Your task to perform on an android device: toggle translation in the chrome app Image 0: 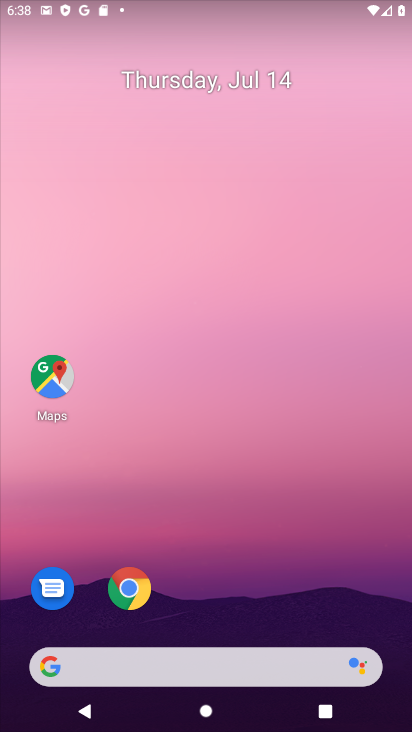
Step 0: drag from (215, 489) to (125, 40)
Your task to perform on an android device: toggle translation in the chrome app Image 1: 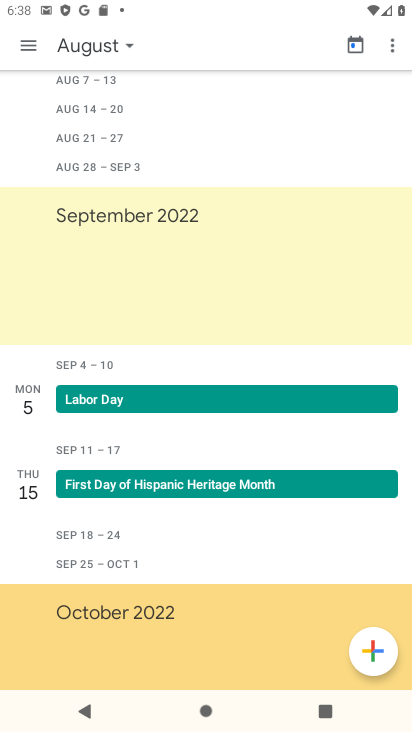
Step 1: press home button
Your task to perform on an android device: toggle translation in the chrome app Image 2: 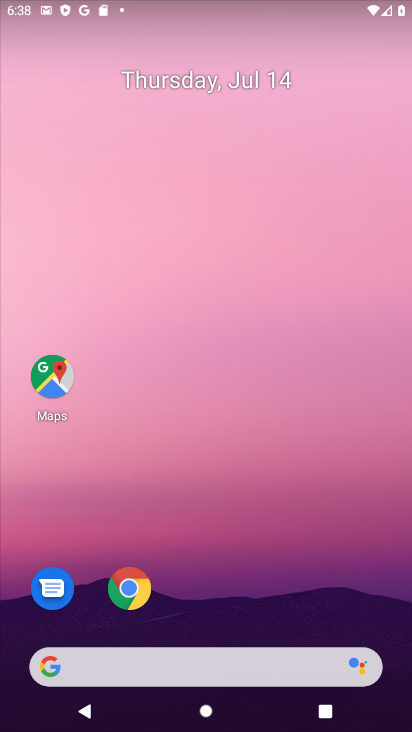
Step 2: click (130, 588)
Your task to perform on an android device: toggle translation in the chrome app Image 3: 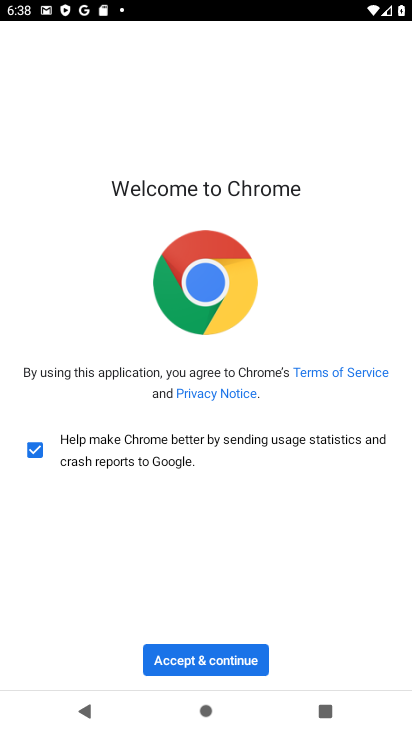
Step 3: click (173, 656)
Your task to perform on an android device: toggle translation in the chrome app Image 4: 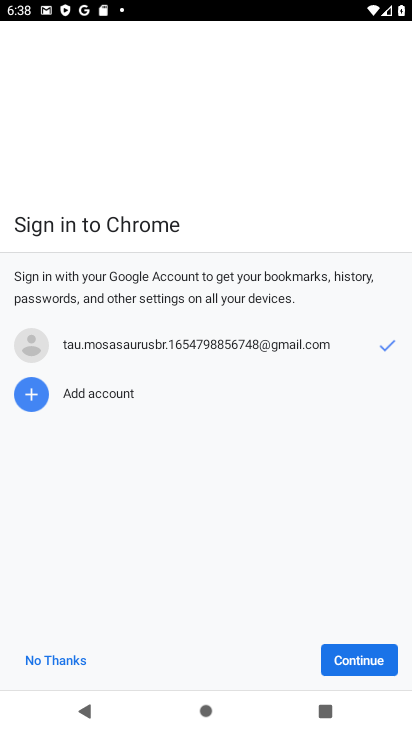
Step 4: click (359, 660)
Your task to perform on an android device: toggle translation in the chrome app Image 5: 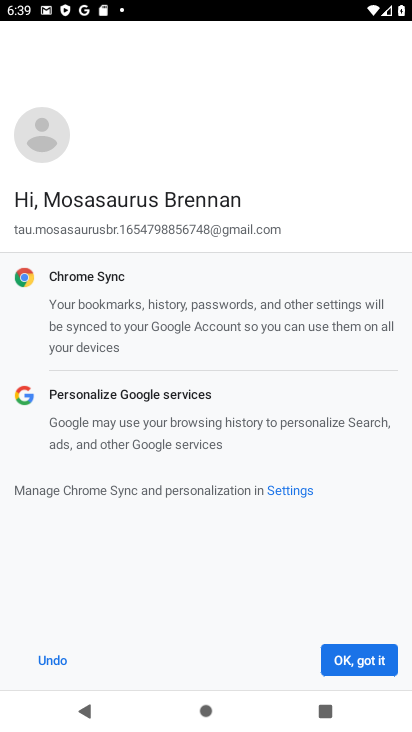
Step 5: click (351, 665)
Your task to perform on an android device: toggle translation in the chrome app Image 6: 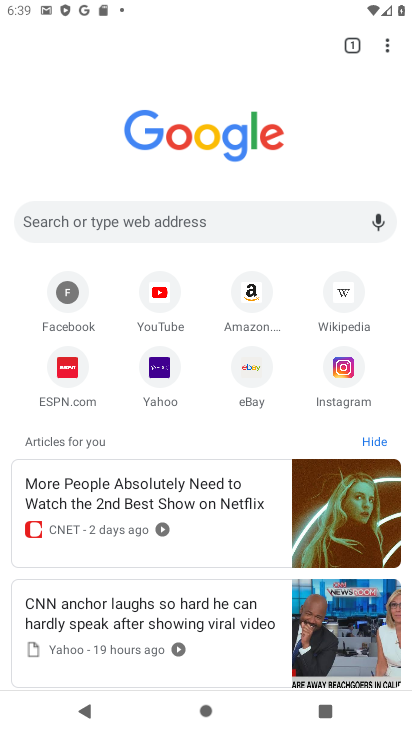
Step 6: click (385, 47)
Your task to perform on an android device: toggle translation in the chrome app Image 7: 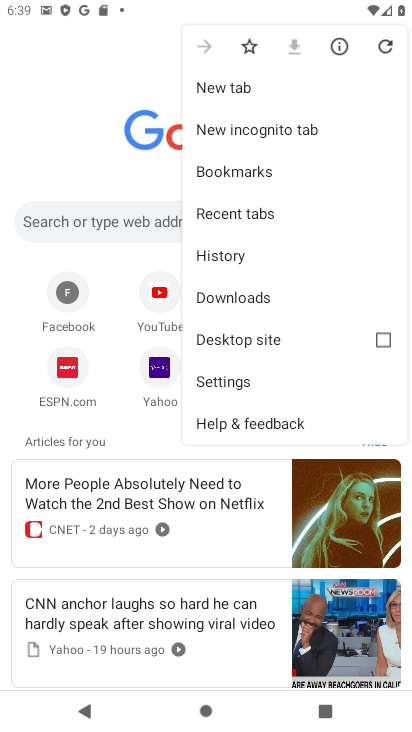
Step 7: click (227, 374)
Your task to perform on an android device: toggle translation in the chrome app Image 8: 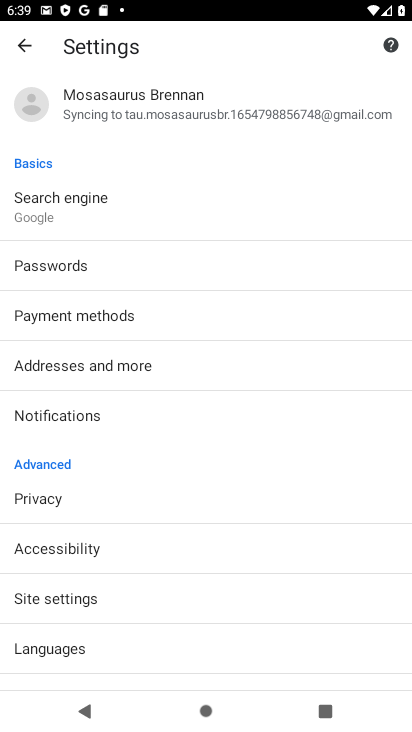
Step 8: click (61, 651)
Your task to perform on an android device: toggle translation in the chrome app Image 9: 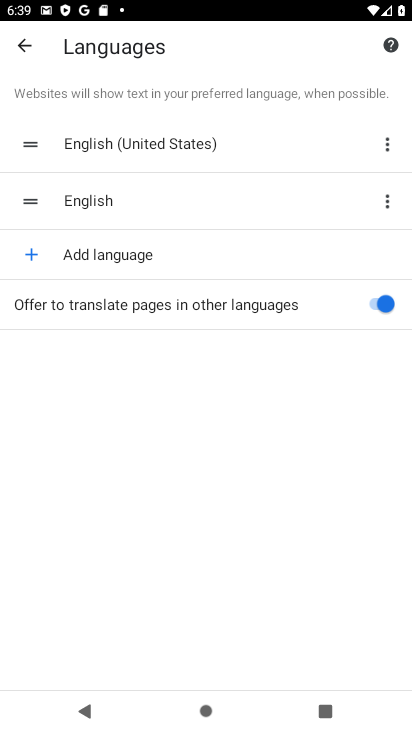
Step 9: click (379, 306)
Your task to perform on an android device: toggle translation in the chrome app Image 10: 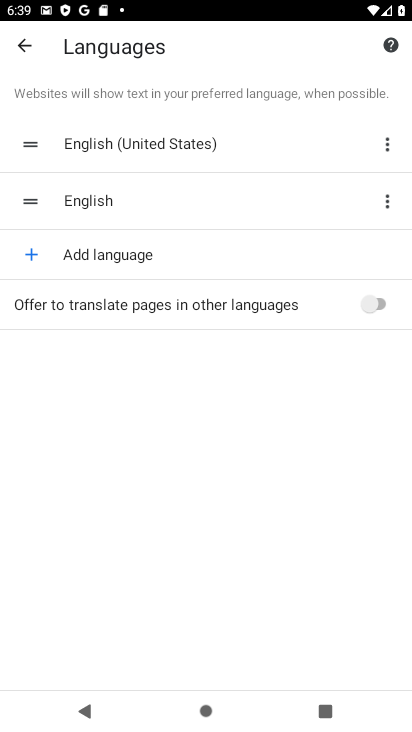
Step 10: task complete